Your task to perform on an android device: Search for sushi restaurants on Maps Image 0: 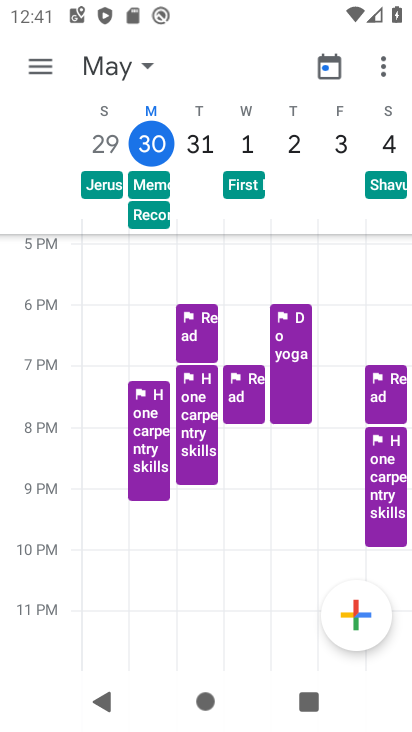
Step 0: press home button
Your task to perform on an android device: Search for sushi restaurants on Maps Image 1: 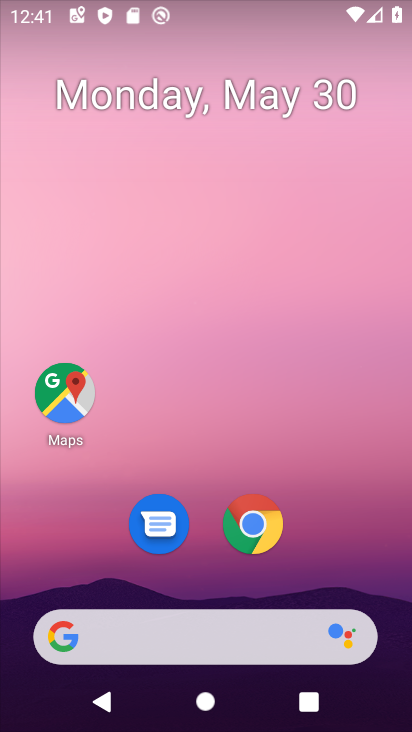
Step 1: click (62, 393)
Your task to perform on an android device: Search for sushi restaurants on Maps Image 2: 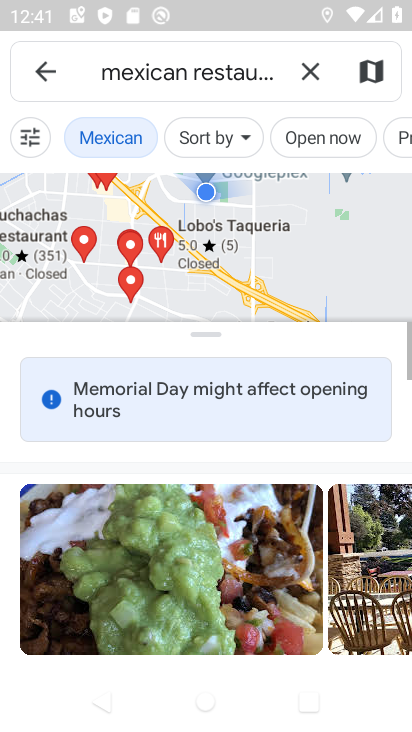
Step 2: click (309, 57)
Your task to perform on an android device: Search for sushi restaurants on Maps Image 3: 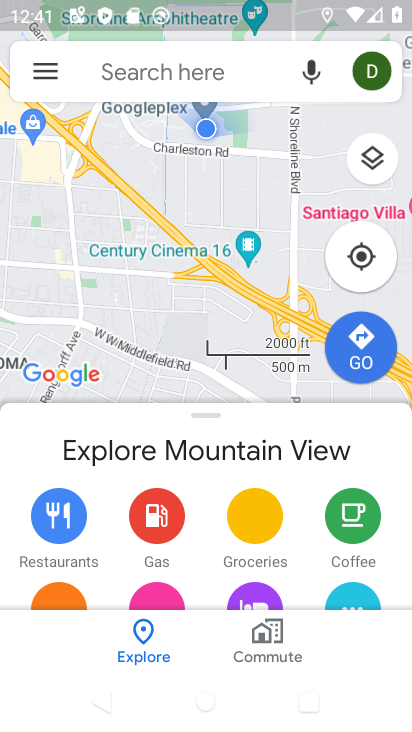
Step 3: click (157, 60)
Your task to perform on an android device: Search for sushi restaurants on Maps Image 4: 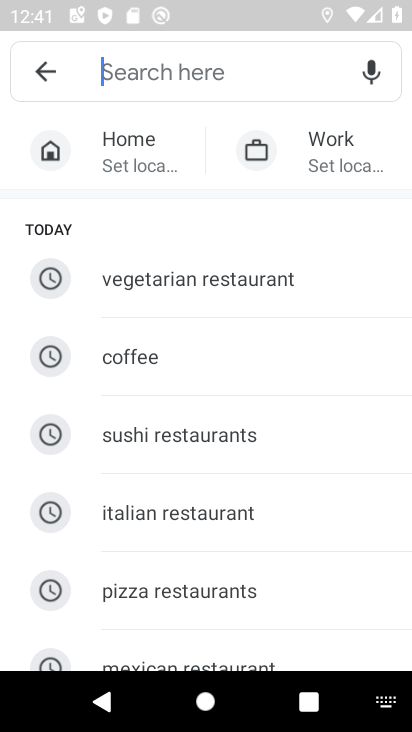
Step 4: click (185, 438)
Your task to perform on an android device: Search for sushi restaurants on Maps Image 5: 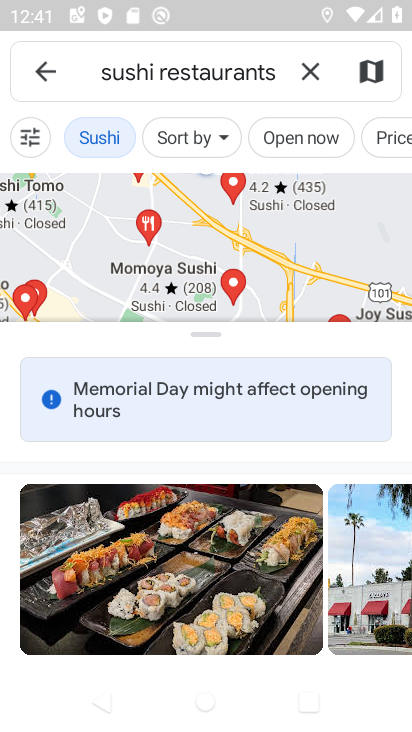
Step 5: task complete